Your task to perform on an android device: Open maps Image 0: 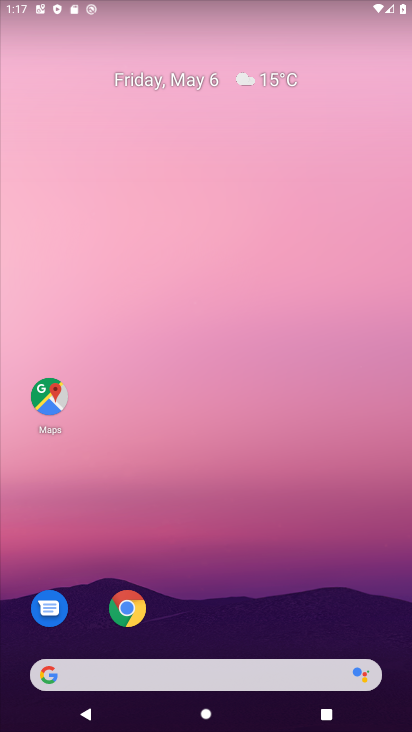
Step 0: click (49, 395)
Your task to perform on an android device: Open maps Image 1: 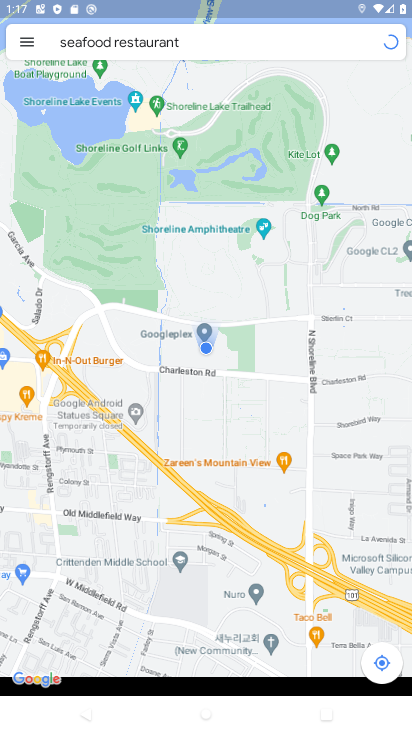
Step 1: task complete